Your task to perform on an android device: Go to sound settings Image 0: 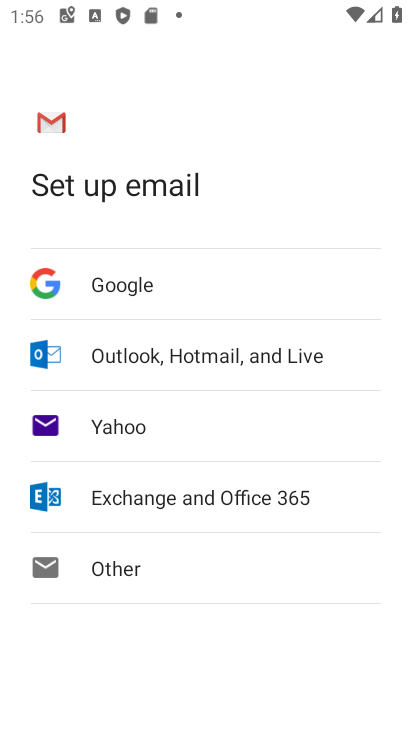
Step 0: press home button
Your task to perform on an android device: Go to sound settings Image 1: 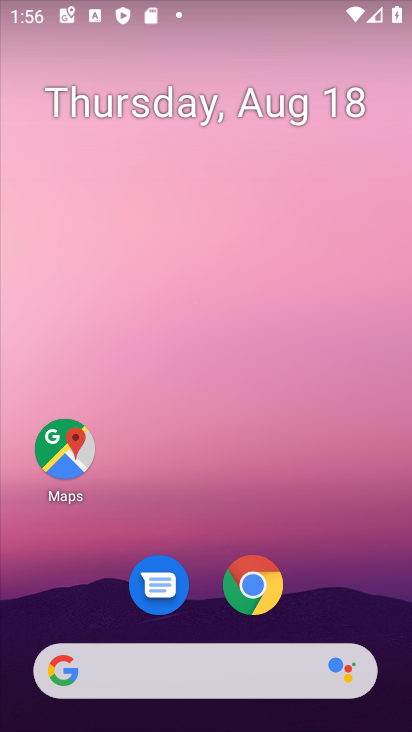
Step 1: drag from (243, 490) to (233, 0)
Your task to perform on an android device: Go to sound settings Image 2: 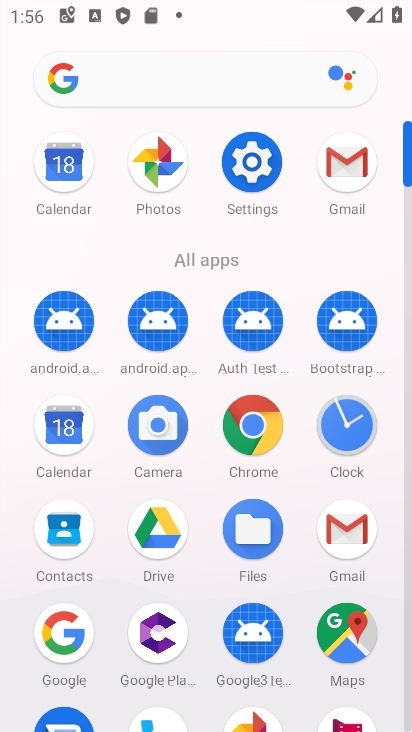
Step 2: click (252, 159)
Your task to perform on an android device: Go to sound settings Image 3: 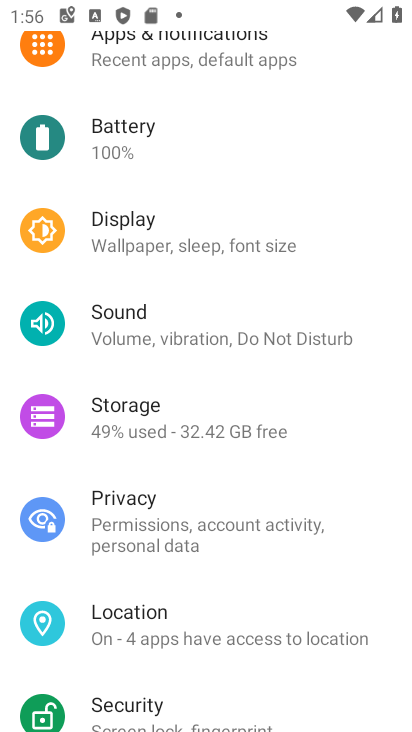
Step 3: click (201, 326)
Your task to perform on an android device: Go to sound settings Image 4: 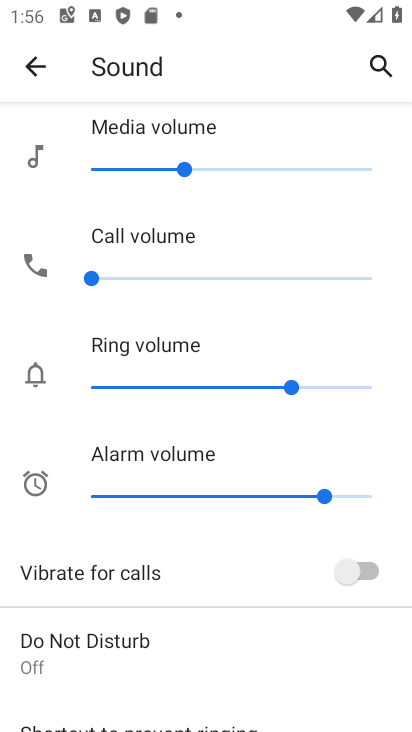
Step 4: task complete